Your task to perform on an android device: uninstall "Google Calendar" Image 0: 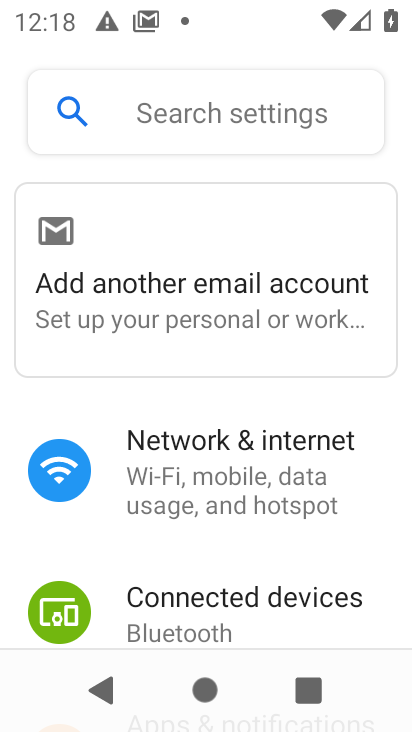
Step 0: press home button
Your task to perform on an android device: uninstall "Google Calendar" Image 1: 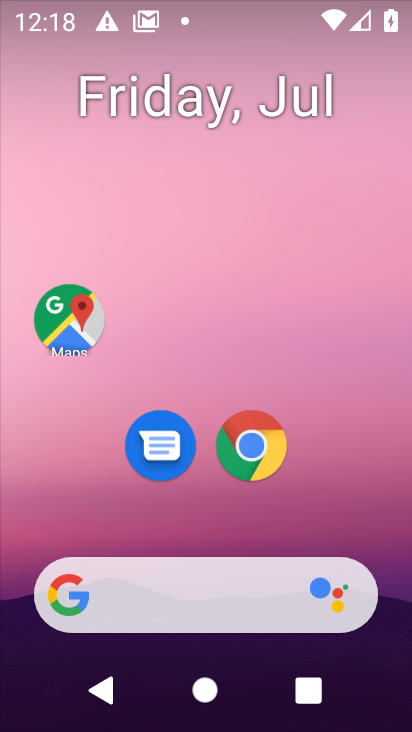
Step 1: drag from (196, 531) to (304, 7)
Your task to perform on an android device: uninstall "Google Calendar" Image 2: 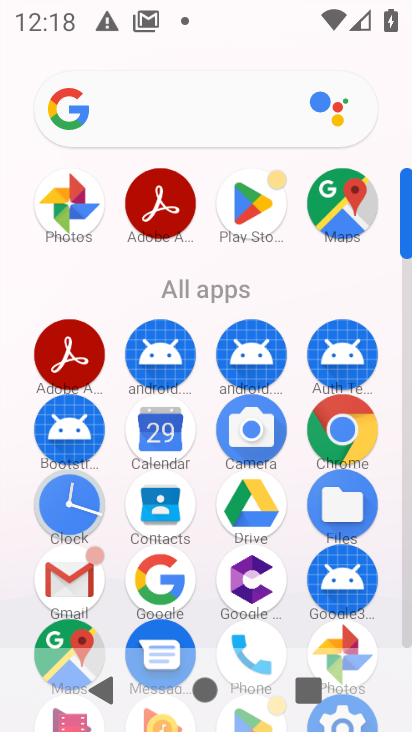
Step 2: click (233, 211)
Your task to perform on an android device: uninstall "Google Calendar" Image 3: 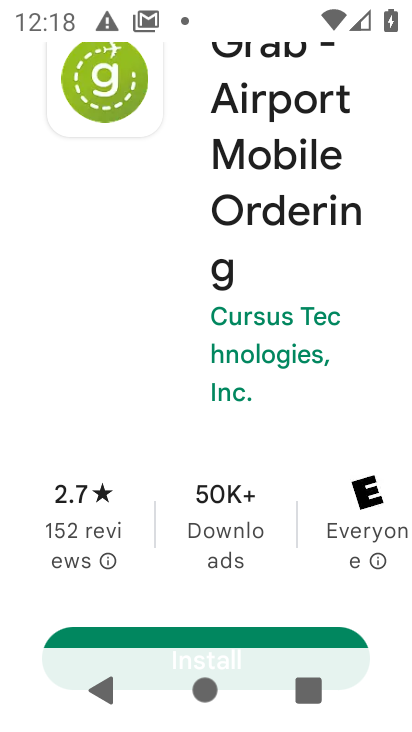
Step 3: drag from (197, 129) to (195, 480)
Your task to perform on an android device: uninstall "Google Calendar" Image 4: 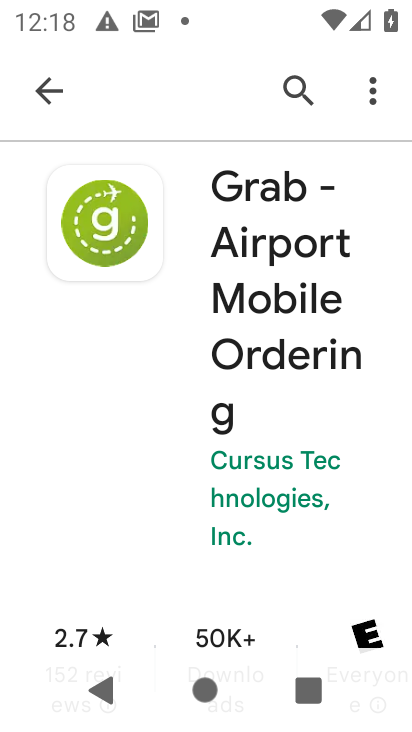
Step 4: click (52, 91)
Your task to perform on an android device: uninstall "Google Calendar" Image 5: 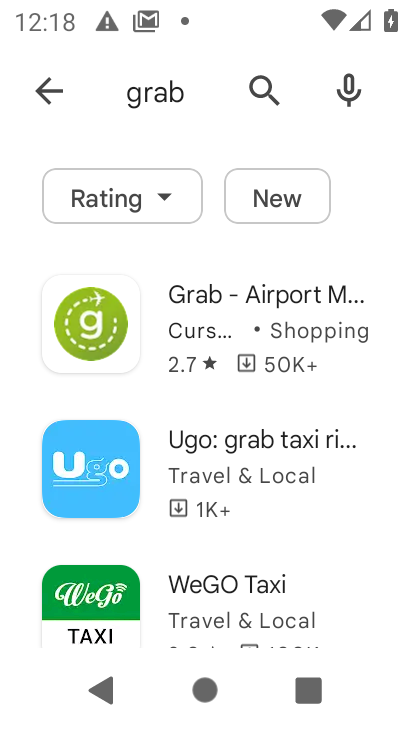
Step 5: click (156, 95)
Your task to perform on an android device: uninstall "Google Calendar" Image 6: 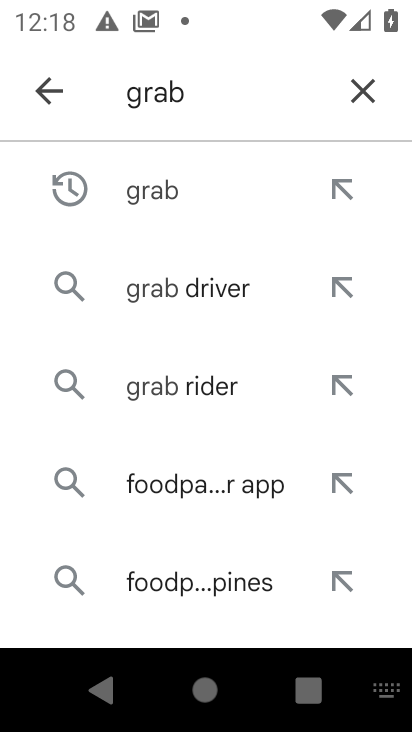
Step 6: click (366, 89)
Your task to perform on an android device: uninstall "Google Calendar" Image 7: 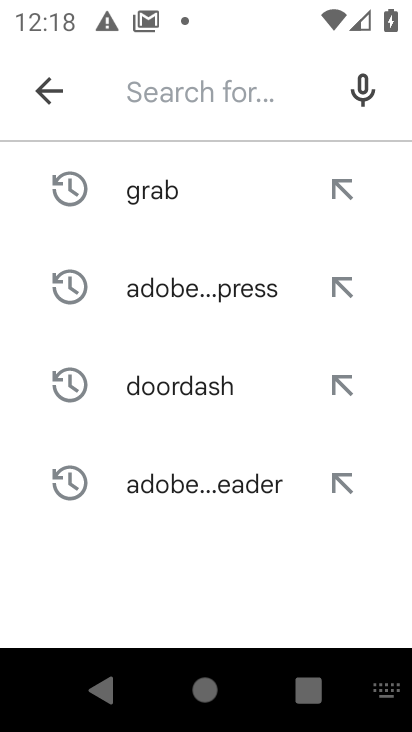
Step 7: type "google calender"
Your task to perform on an android device: uninstall "Google Calendar" Image 8: 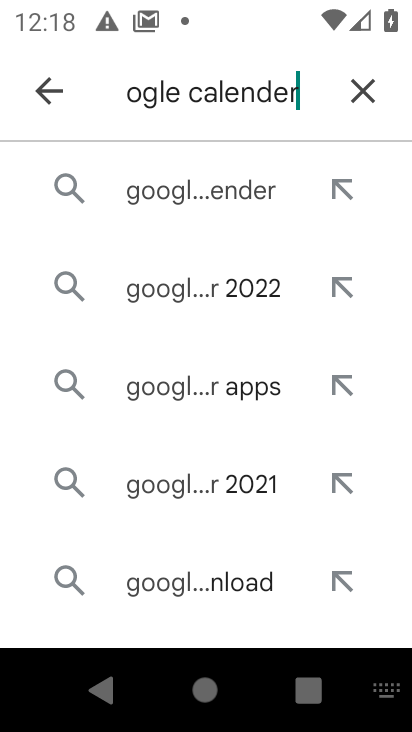
Step 8: click (209, 196)
Your task to perform on an android device: uninstall "Google Calendar" Image 9: 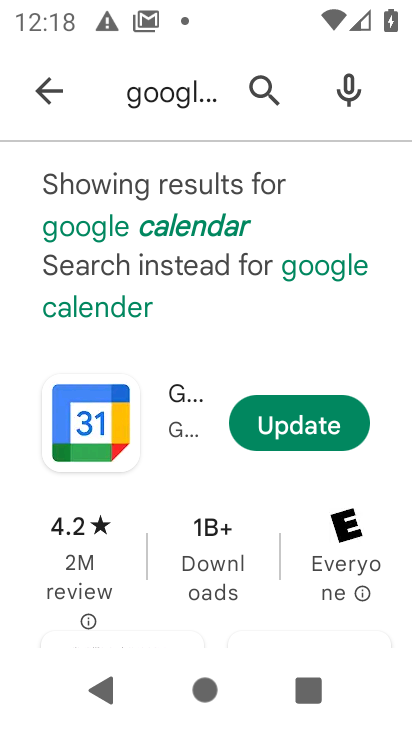
Step 9: click (170, 421)
Your task to perform on an android device: uninstall "Google Calendar" Image 10: 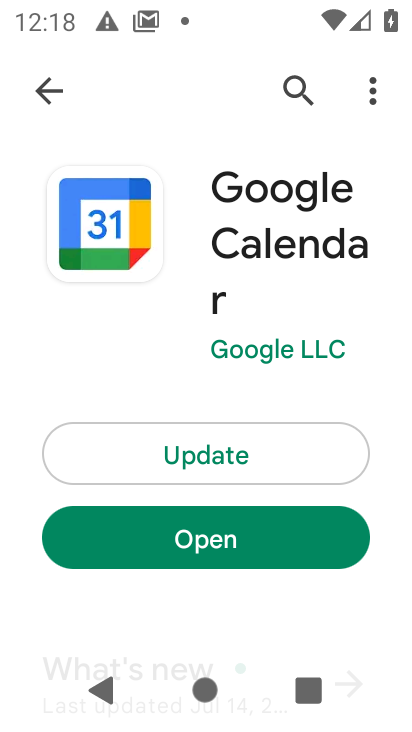
Step 10: task complete